Your task to perform on an android device: delete browsing data in the chrome app Image 0: 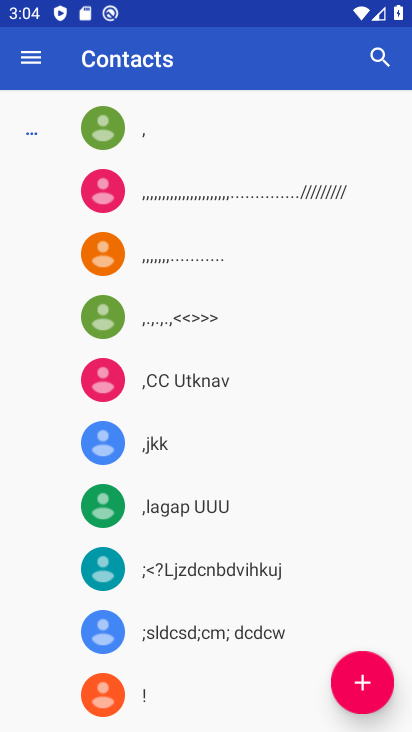
Step 0: press home button
Your task to perform on an android device: delete browsing data in the chrome app Image 1: 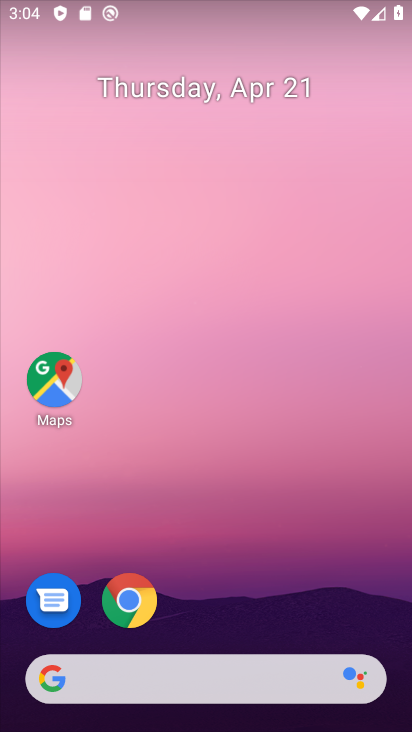
Step 1: click (113, 588)
Your task to perform on an android device: delete browsing data in the chrome app Image 2: 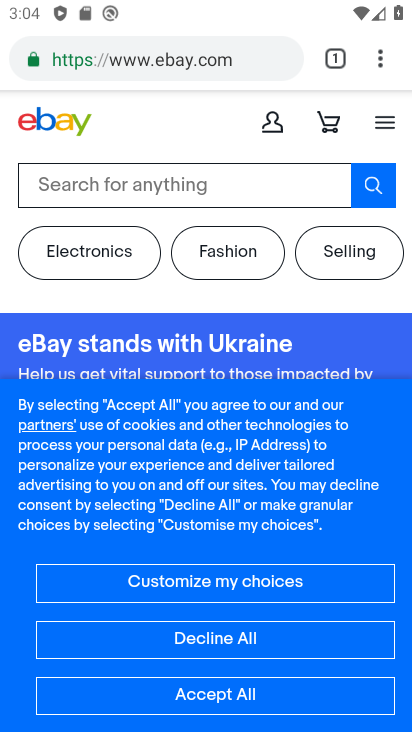
Step 2: click (382, 47)
Your task to perform on an android device: delete browsing data in the chrome app Image 3: 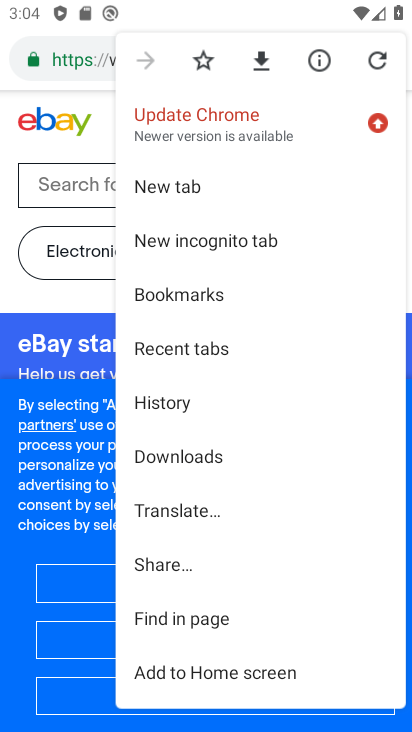
Step 3: click (237, 402)
Your task to perform on an android device: delete browsing data in the chrome app Image 4: 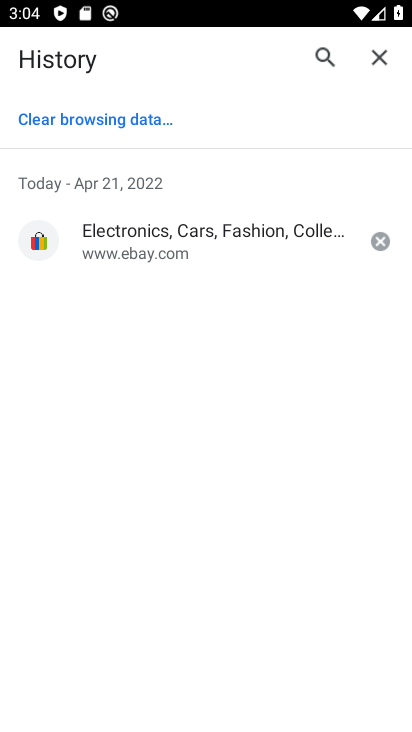
Step 4: click (69, 117)
Your task to perform on an android device: delete browsing data in the chrome app Image 5: 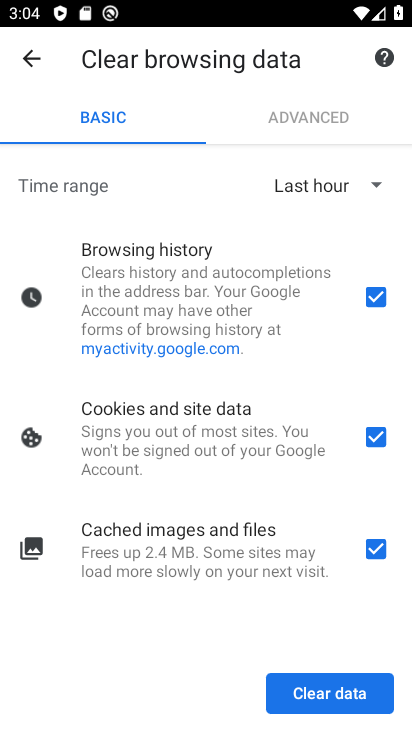
Step 5: click (343, 454)
Your task to perform on an android device: delete browsing data in the chrome app Image 6: 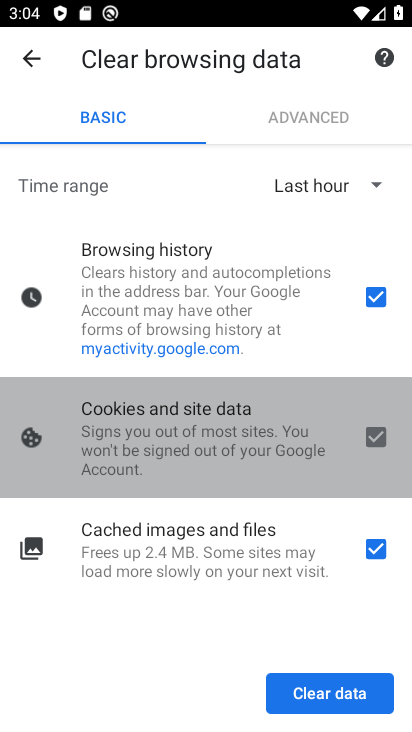
Step 6: click (349, 590)
Your task to perform on an android device: delete browsing data in the chrome app Image 7: 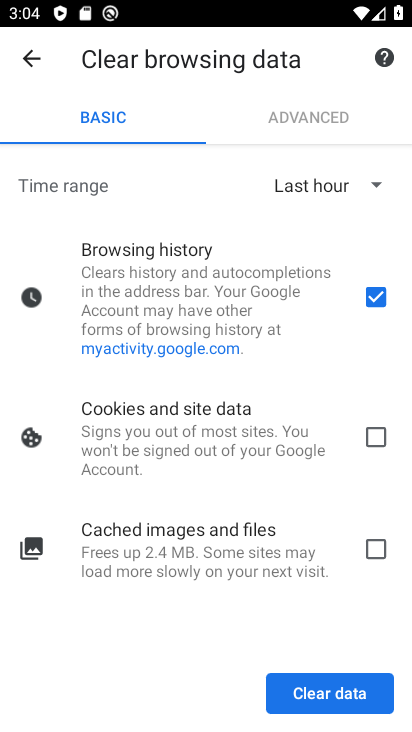
Step 7: click (331, 701)
Your task to perform on an android device: delete browsing data in the chrome app Image 8: 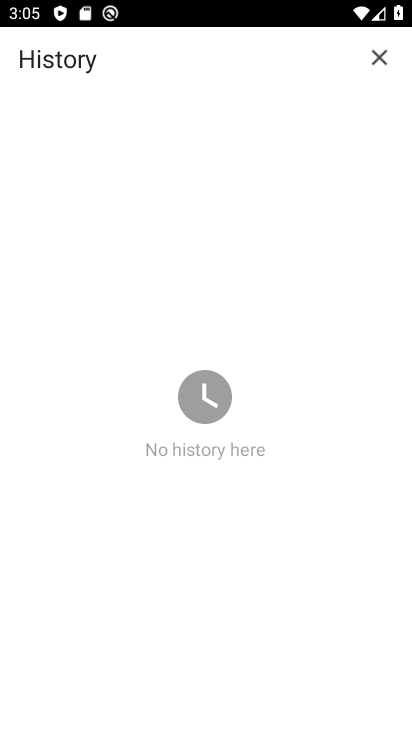
Step 8: task complete